Your task to perform on an android device: What's the weather today? Image 0: 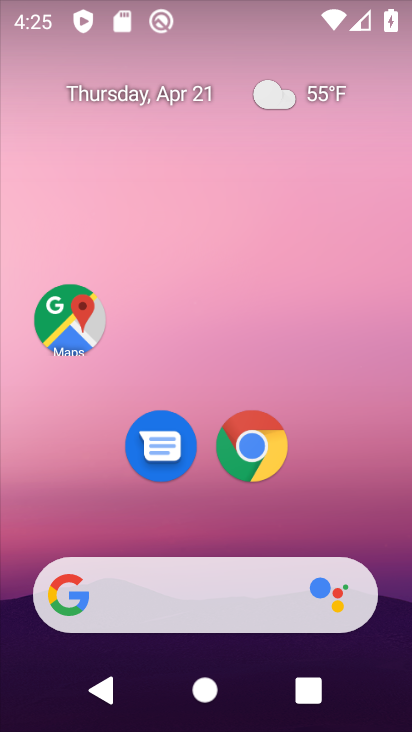
Step 0: click (185, 593)
Your task to perform on an android device: What's the weather today? Image 1: 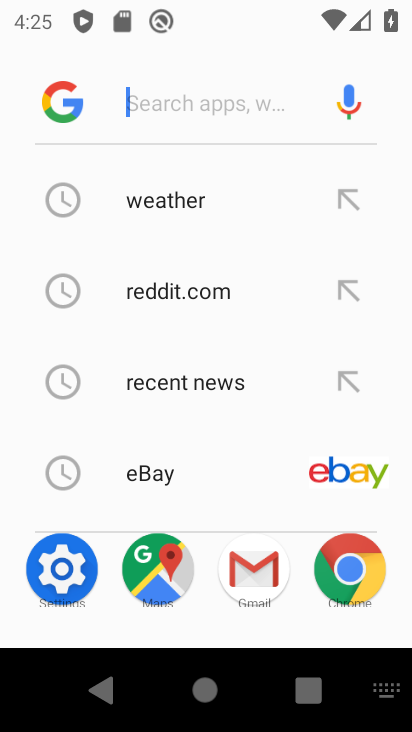
Step 1: click (61, 72)
Your task to perform on an android device: What's the weather today? Image 2: 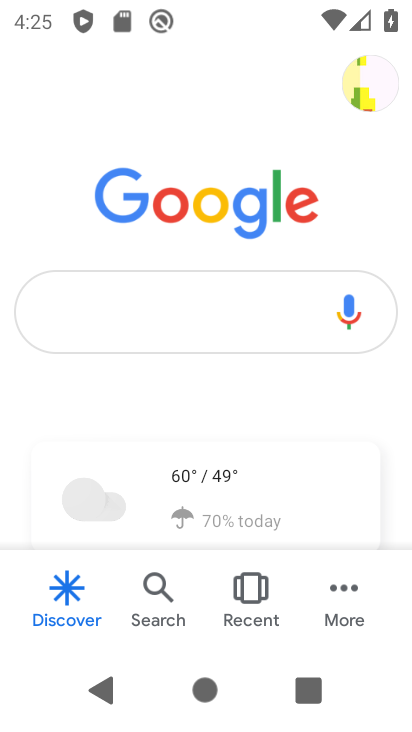
Step 2: click (238, 464)
Your task to perform on an android device: What's the weather today? Image 3: 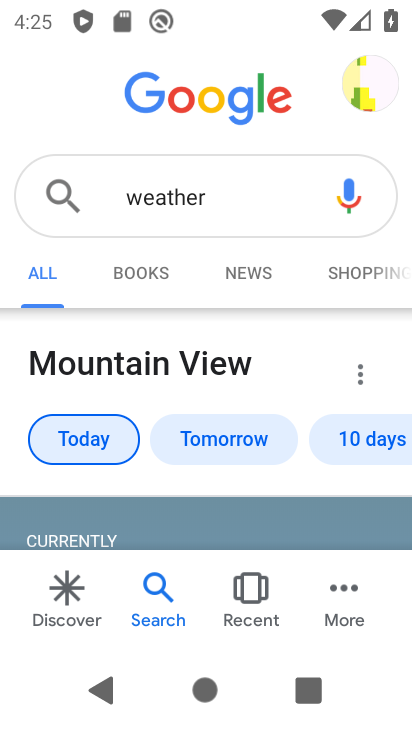
Step 3: task complete